Your task to perform on an android device: See recent photos Image 0: 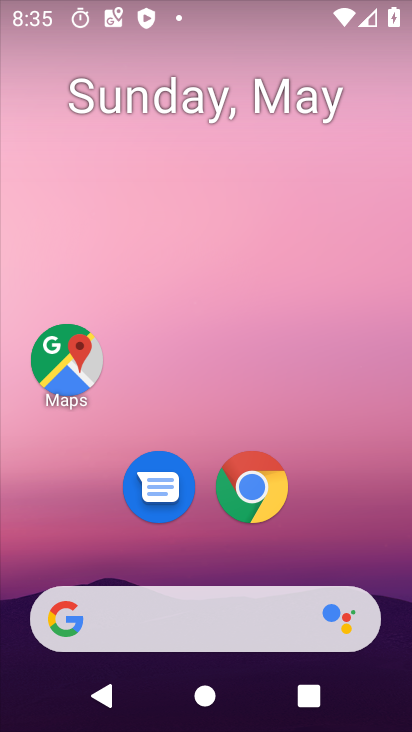
Step 0: drag from (35, 581) to (281, 50)
Your task to perform on an android device: See recent photos Image 1: 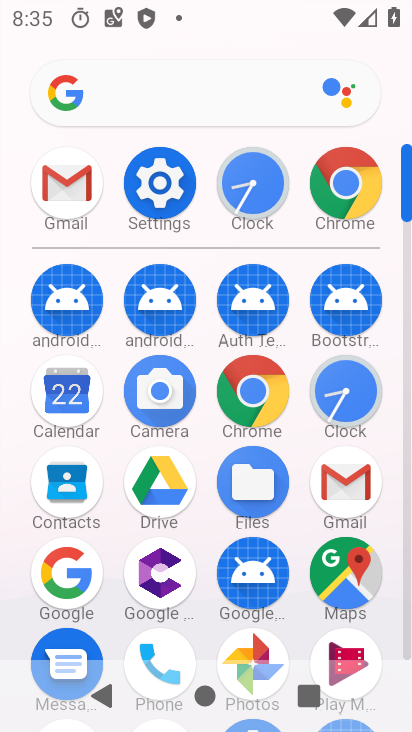
Step 1: click (260, 645)
Your task to perform on an android device: See recent photos Image 2: 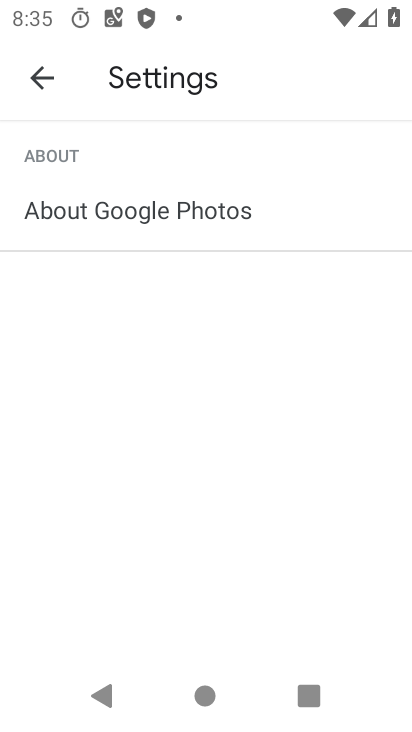
Step 2: click (32, 62)
Your task to perform on an android device: See recent photos Image 3: 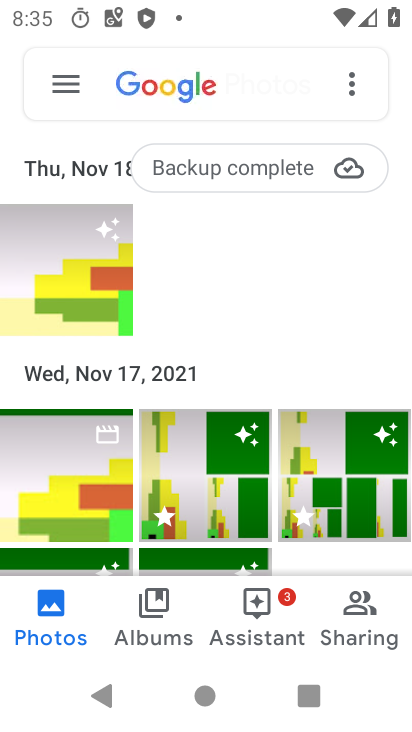
Step 3: task complete